Your task to perform on an android device: Go to settings Image 0: 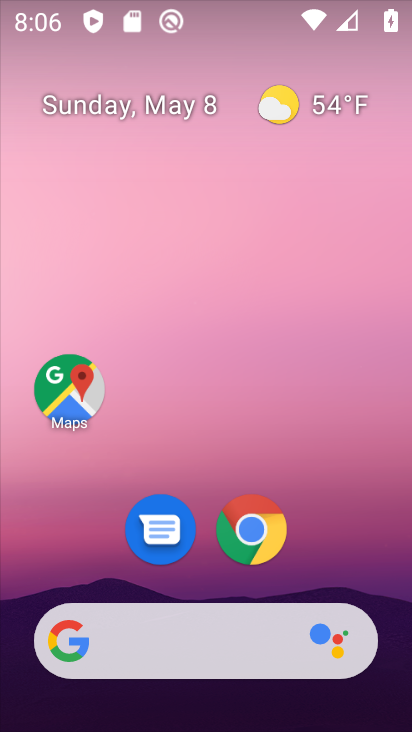
Step 0: press home button
Your task to perform on an android device: Go to settings Image 1: 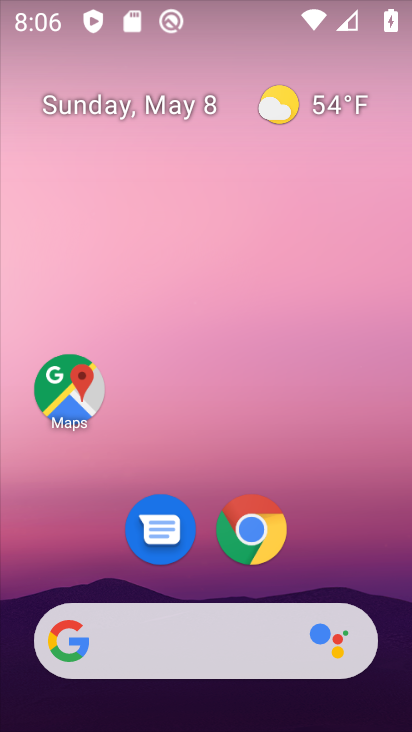
Step 1: drag from (359, 548) to (361, 77)
Your task to perform on an android device: Go to settings Image 2: 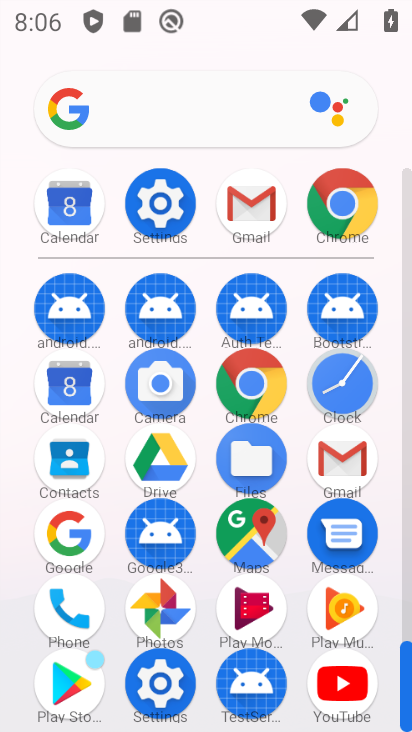
Step 2: click (160, 207)
Your task to perform on an android device: Go to settings Image 3: 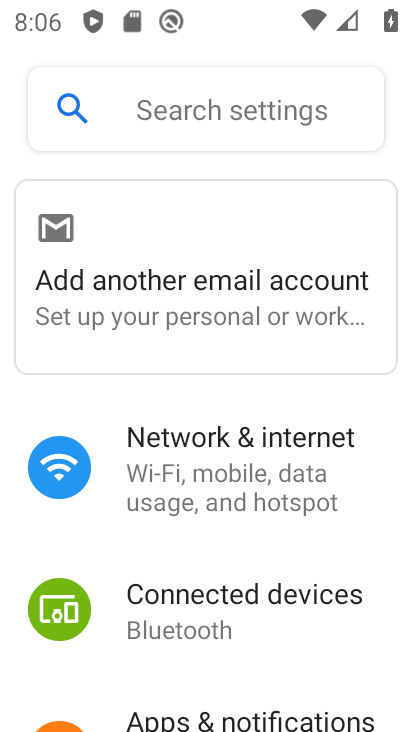
Step 3: task complete